Your task to perform on an android device: turn notification dots off Image 0: 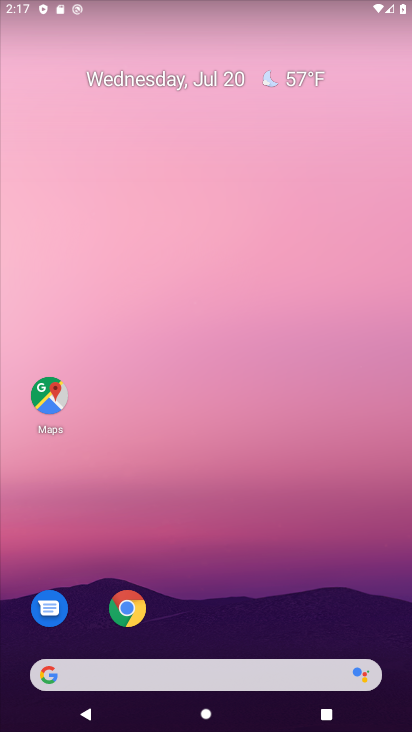
Step 0: drag from (220, 621) to (140, 32)
Your task to perform on an android device: turn notification dots off Image 1: 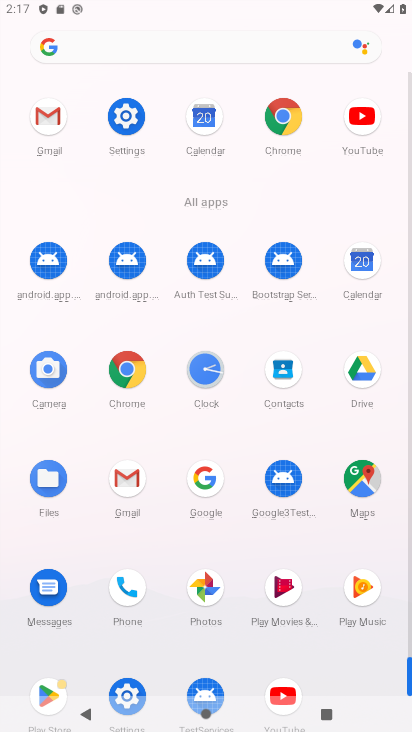
Step 1: click (121, 111)
Your task to perform on an android device: turn notification dots off Image 2: 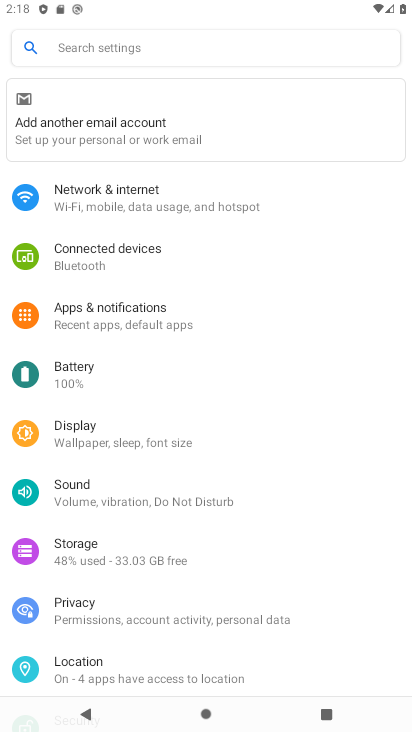
Step 2: click (167, 314)
Your task to perform on an android device: turn notification dots off Image 3: 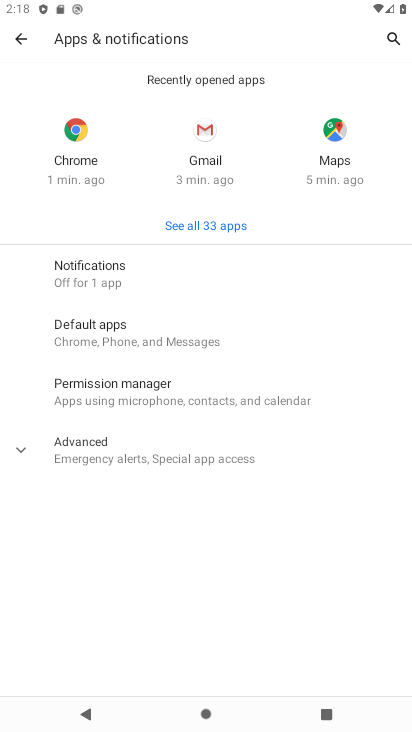
Step 3: click (100, 273)
Your task to perform on an android device: turn notification dots off Image 4: 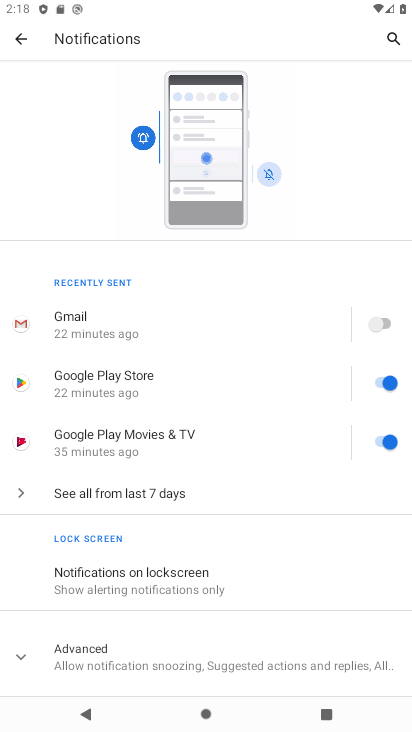
Step 4: click (134, 658)
Your task to perform on an android device: turn notification dots off Image 5: 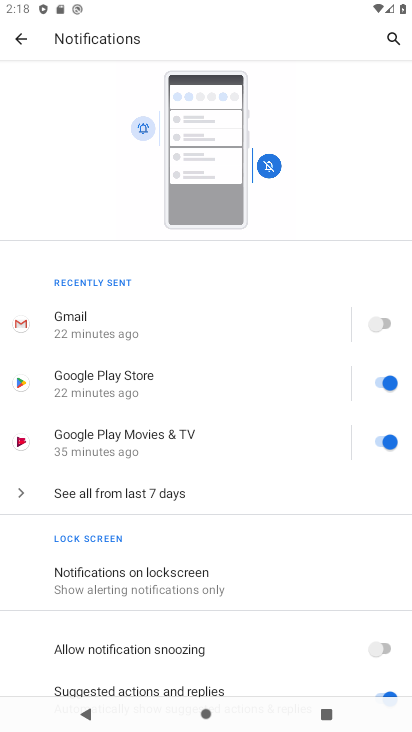
Step 5: drag from (167, 644) to (113, 230)
Your task to perform on an android device: turn notification dots off Image 6: 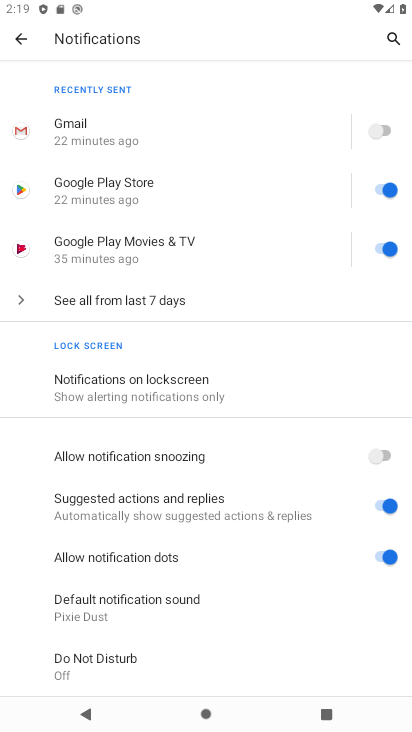
Step 6: click (368, 558)
Your task to perform on an android device: turn notification dots off Image 7: 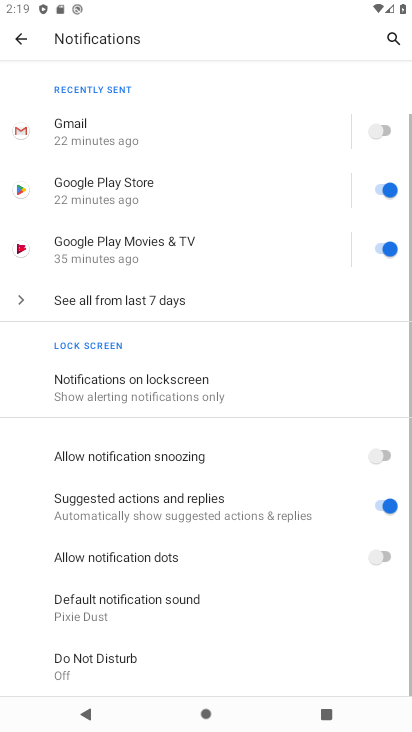
Step 7: task complete